Your task to perform on an android device: move an email to a new category in the gmail app Image 0: 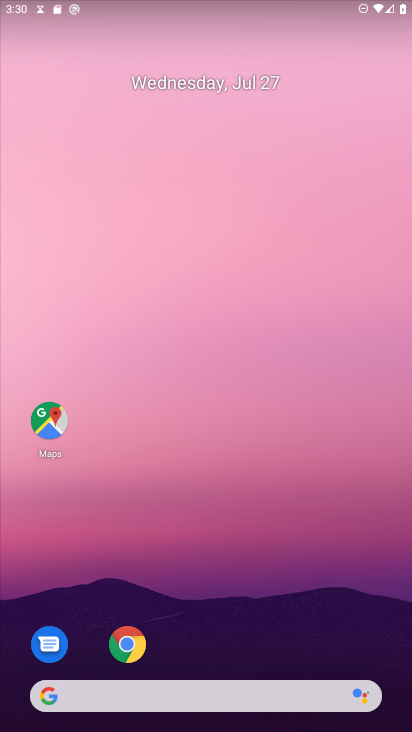
Step 0: drag from (195, 661) to (137, 9)
Your task to perform on an android device: move an email to a new category in the gmail app Image 1: 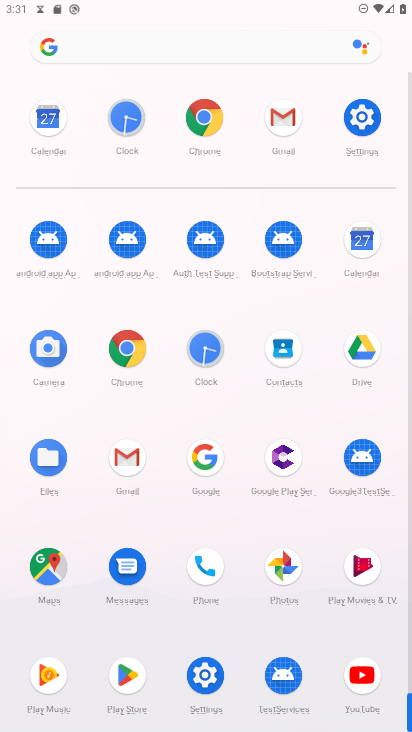
Step 1: click (131, 473)
Your task to perform on an android device: move an email to a new category in the gmail app Image 2: 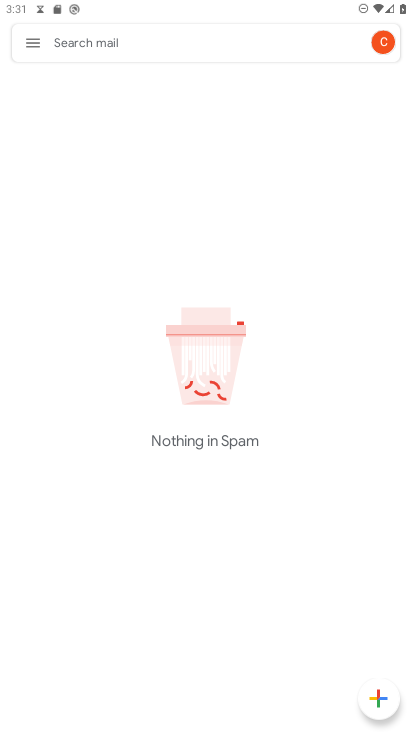
Step 2: click (35, 41)
Your task to perform on an android device: move an email to a new category in the gmail app Image 3: 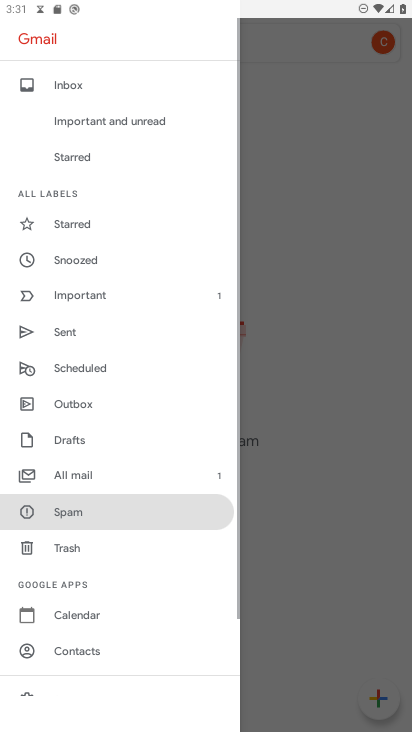
Step 3: drag from (52, 90) to (78, 281)
Your task to perform on an android device: move an email to a new category in the gmail app Image 4: 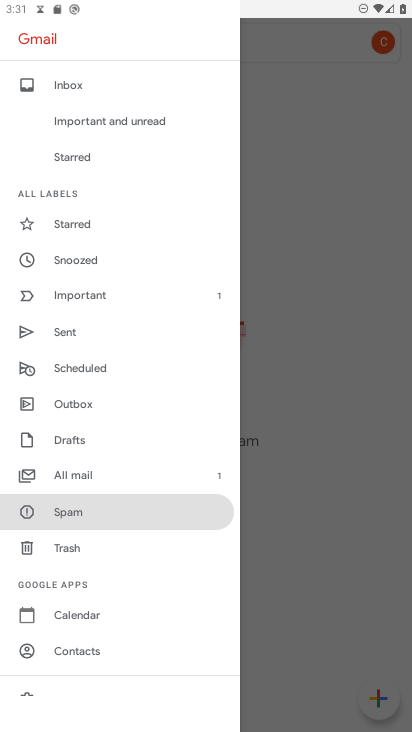
Step 4: click (78, 85)
Your task to perform on an android device: move an email to a new category in the gmail app Image 5: 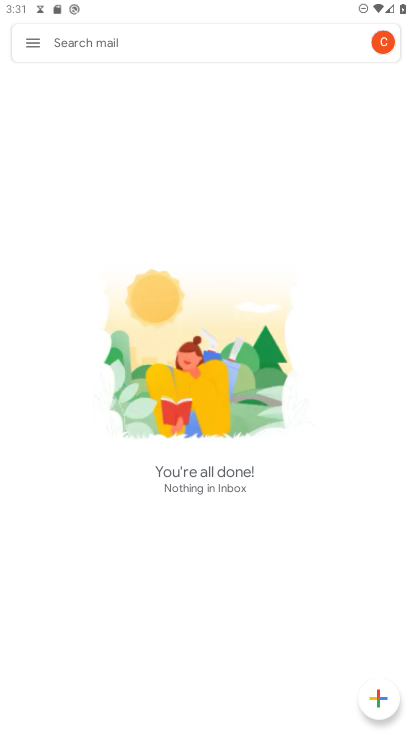
Step 5: task complete